Your task to perform on an android device: turn on the 12-hour format for clock Image 0: 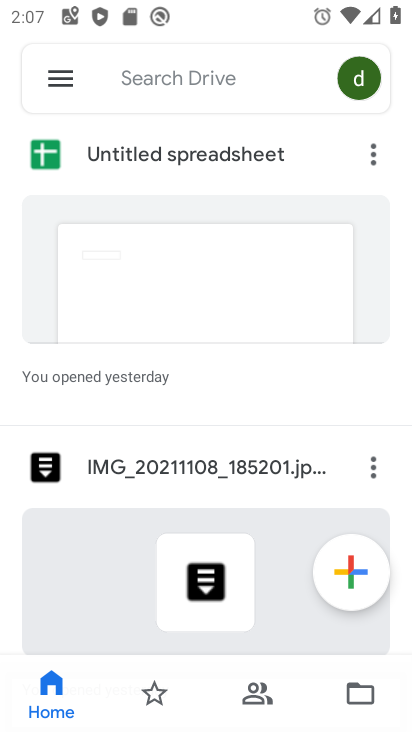
Step 0: press home button
Your task to perform on an android device: turn on the 12-hour format for clock Image 1: 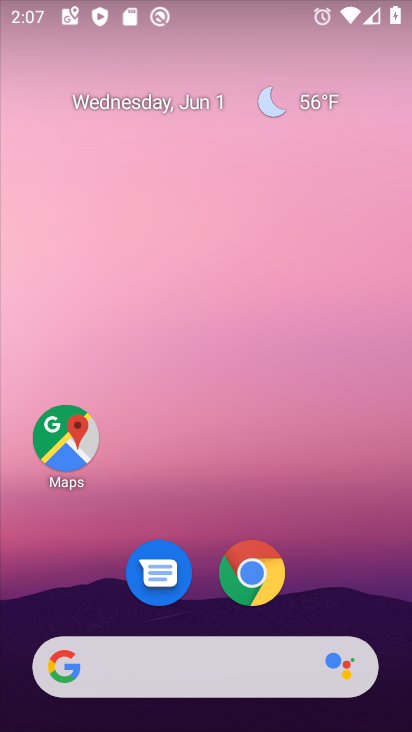
Step 1: drag from (364, 581) to (207, 11)
Your task to perform on an android device: turn on the 12-hour format for clock Image 2: 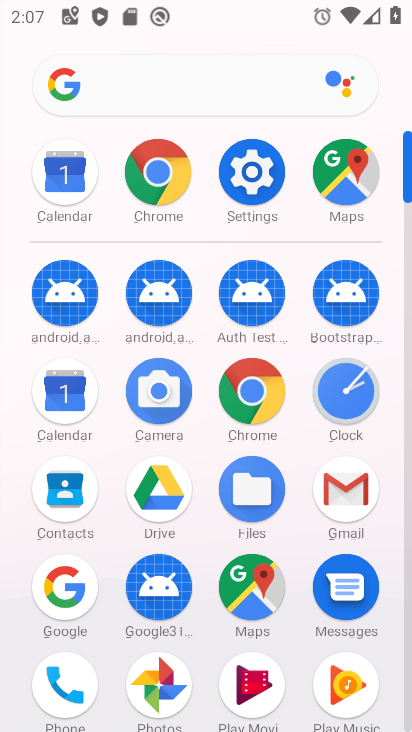
Step 2: click (361, 407)
Your task to perform on an android device: turn on the 12-hour format for clock Image 3: 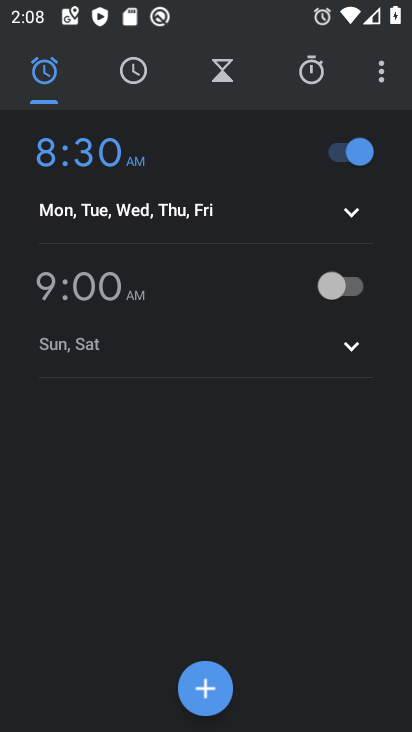
Step 3: click (389, 79)
Your task to perform on an android device: turn on the 12-hour format for clock Image 4: 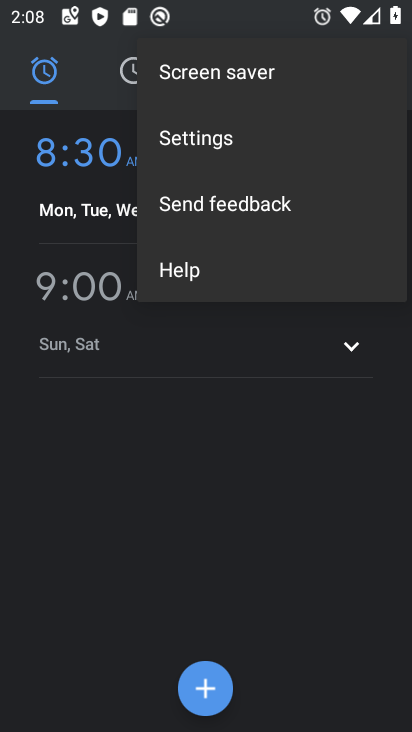
Step 4: click (250, 151)
Your task to perform on an android device: turn on the 12-hour format for clock Image 5: 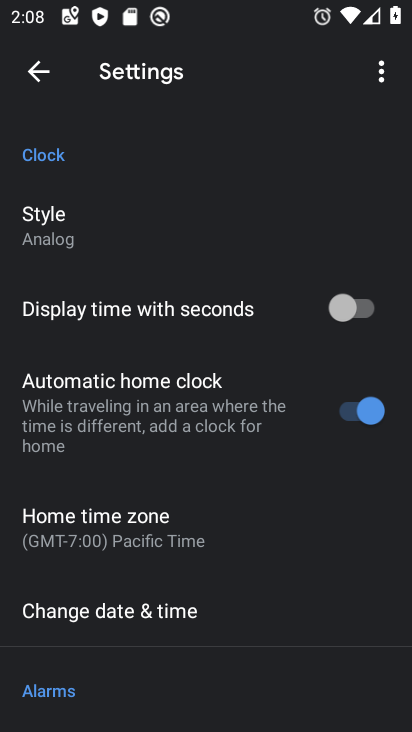
Step 5: click (125, 622)
Your task to perform on an android device: turn on the 12-hour format for clock Image 6: 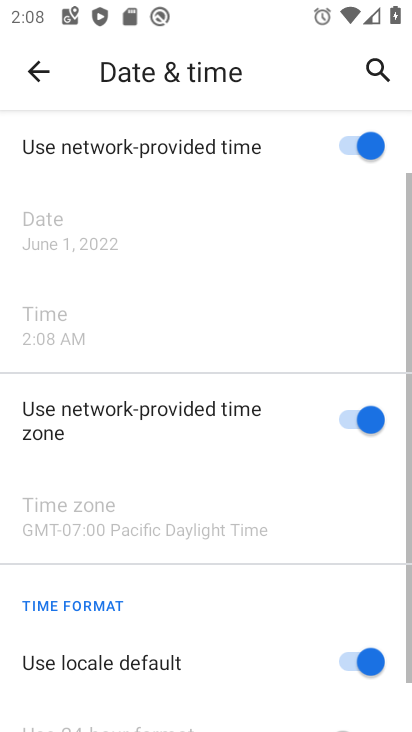
Step 6: task complete